Your task to perform on an android device: Open Amazon Image 0: 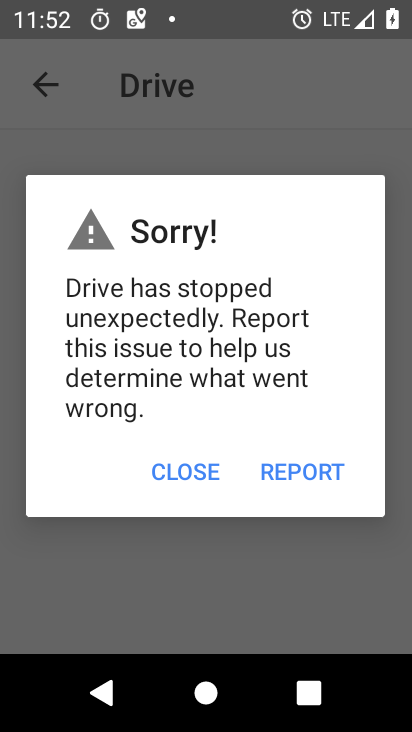
Step 0: press back button
Your task to perform on an android device: Open Amazon Image 1: 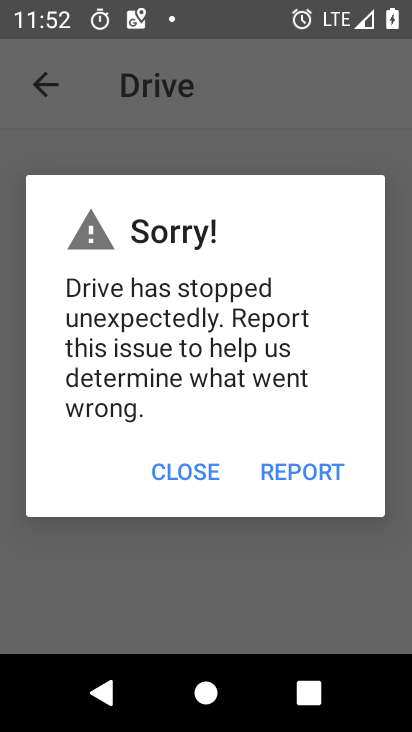
Step 1: press home button
Your task to perform on an android device: Open Amazon Image 2: 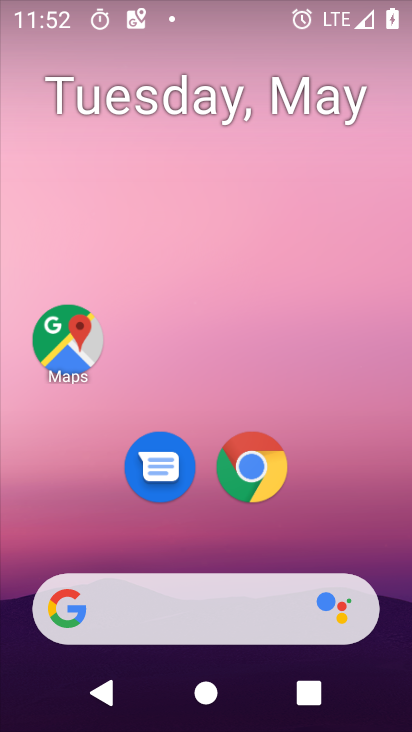
Step 2: click (255, 461)
Your task to perform on an android device: Open Amazon Image 3: 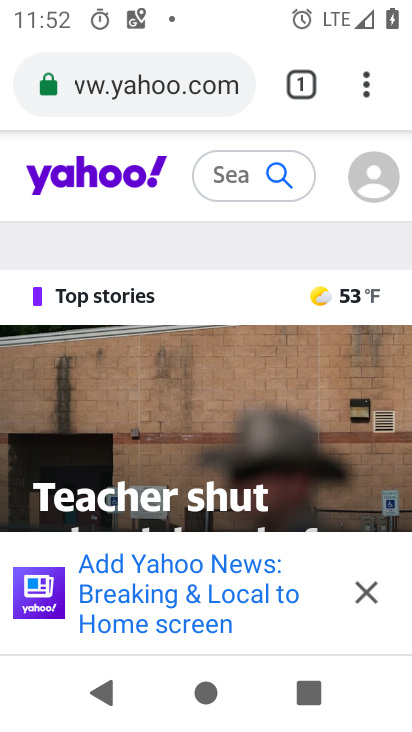
Step 3: click (189, 82)
Your task to perform on an android device: Open Amazon Image 4: 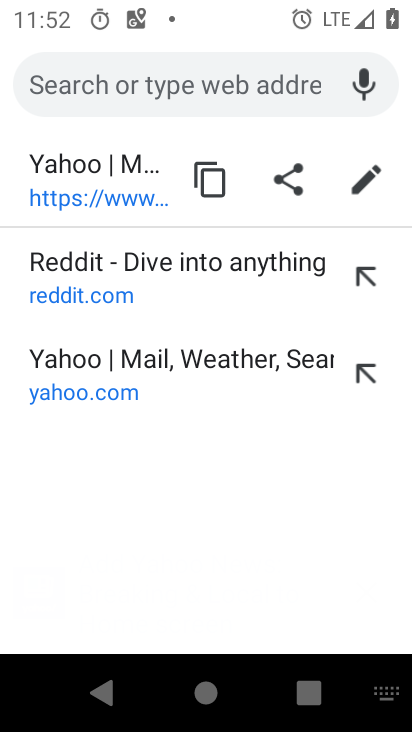
Step 4: click (243, 84)
Your task to perform on an android device: Open Amazon Image 5: 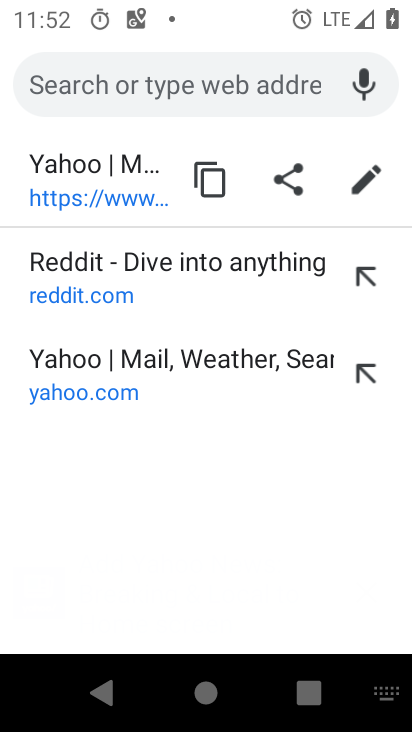
Step 5: type "Amazon"
Your task to perform on an android device: Open Amazon Image 6: 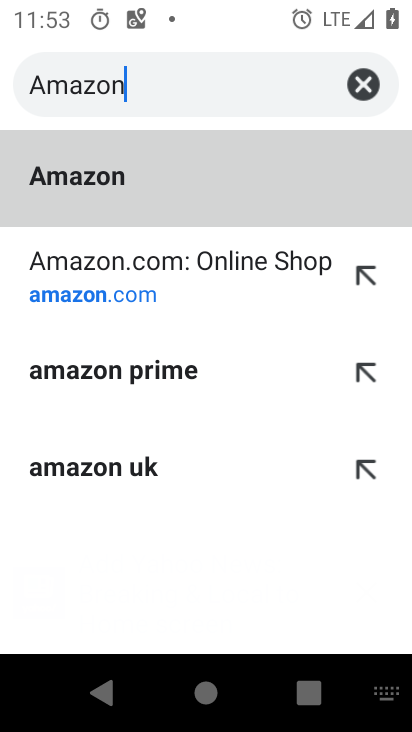
Step 6: click (199, 258)
Your task to perform on an android device: Open Amazon Image 7: 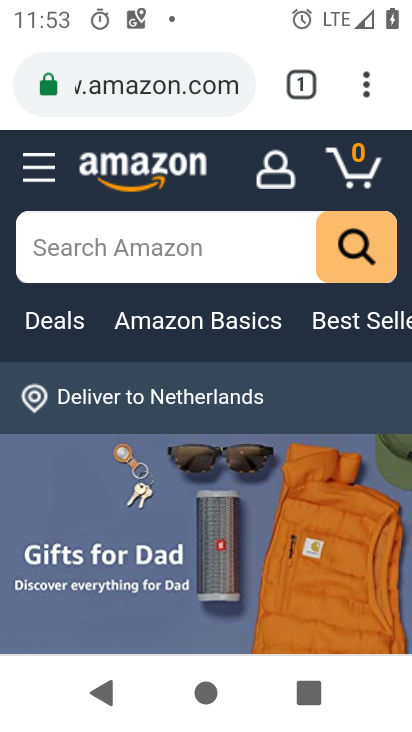
Step 7: task complete